Your task to perform on an android device: Go to battery settings Image 0: 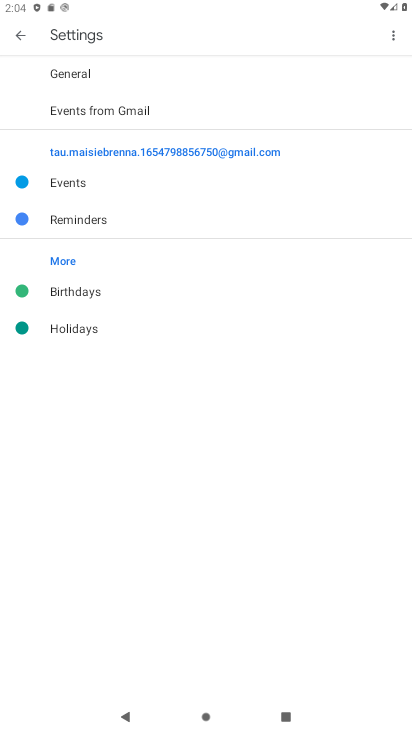
Step 0: press home button
Your task to perform on an android device: Go to battery settings Image 1: 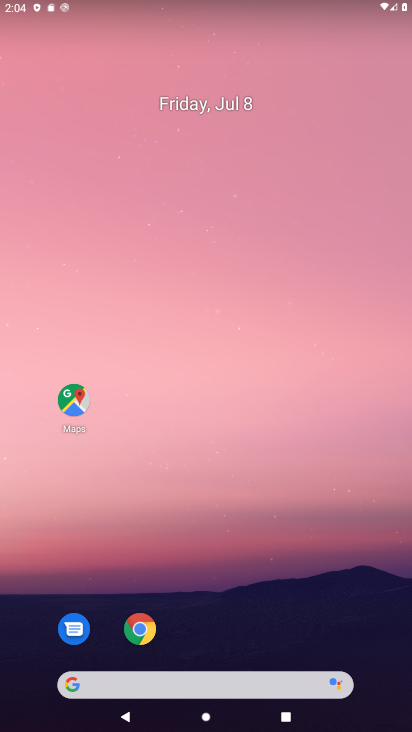
Step 1: drag from (45, 695) to (259, 16)
Your task to perform on an android device: Go to battery settings Image 2: 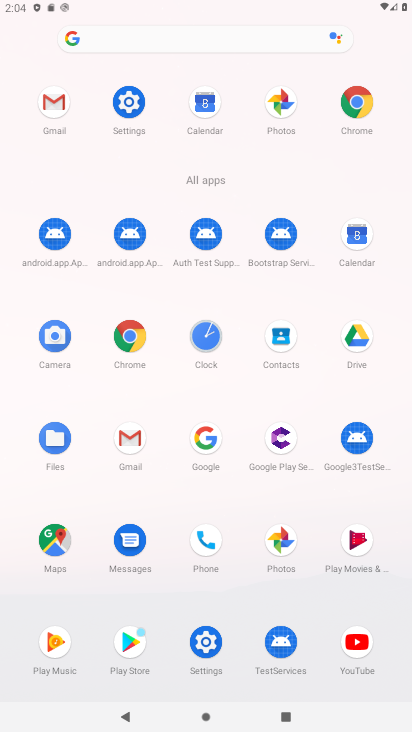
Step 2: click (202, 638)
Your task to perform on an android device: Go to battery settings Image 3: 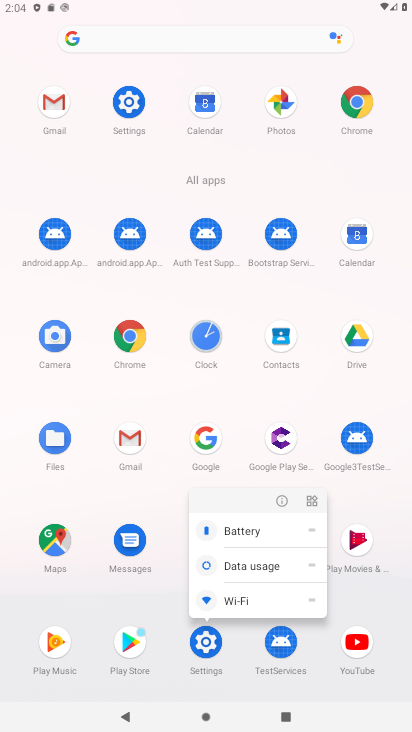
Step 3: click (196, 651)
Your task to perform on an android device: Go to battery settings Image 4: 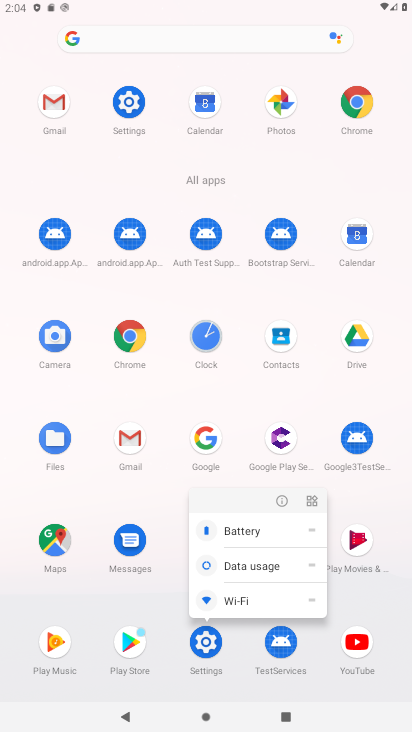
Step 4: click (201, 652)
Your task to perform on an android device: Go to battery settings Image 5: 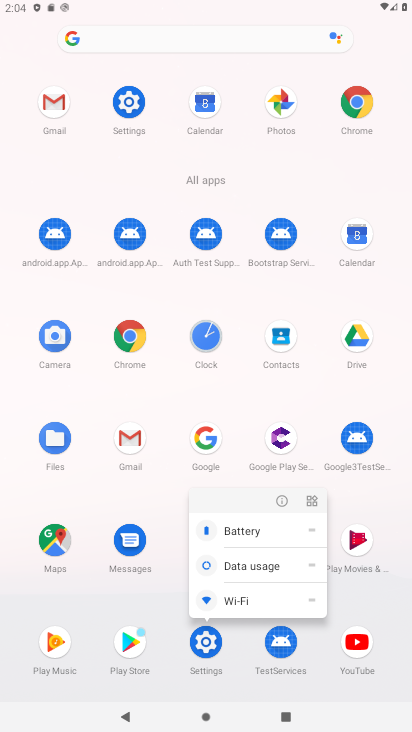
Step 5: click (233, 529)
Your task to perform on an android device: Go to battery settings Image 6: 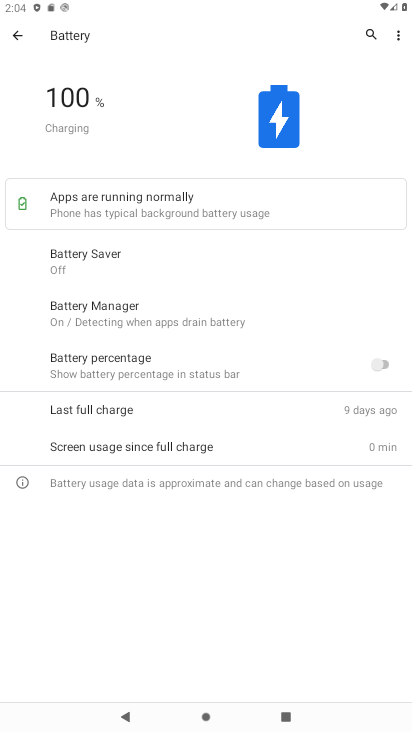
Step 6: task complete